Your task to perform on an android device: Show me popular games on the Play Store Image 0: 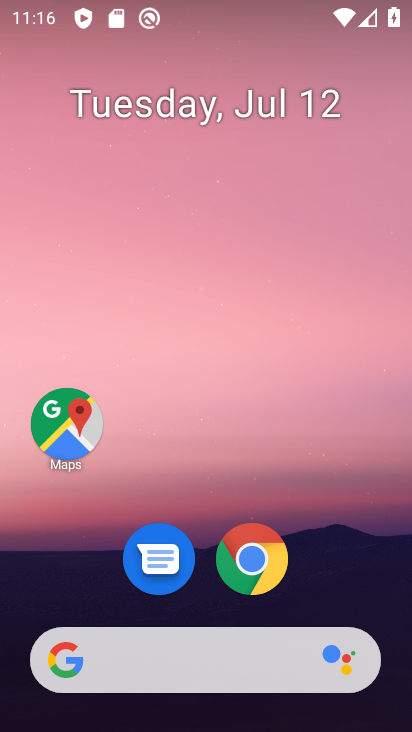
Step 0: drag from (183, 516) to (182, 339)
Your task to perform on an android device: Show me popular games on the Play Store Image 1: 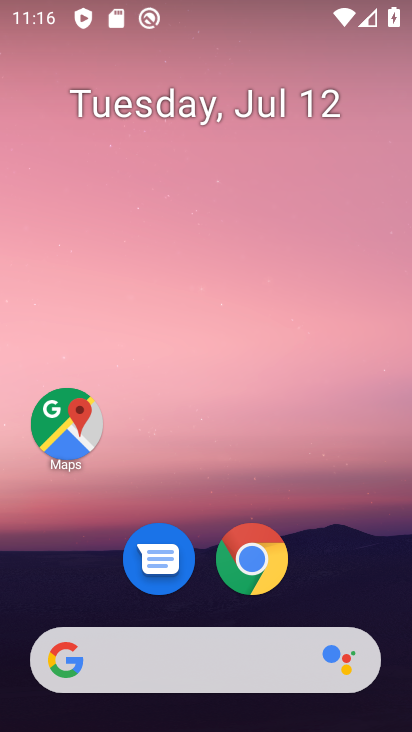
Step 1: drag from (192, 501) to (209, 308)
Your task to perform on an android device: Show me popular games on the Play Store Image 2: 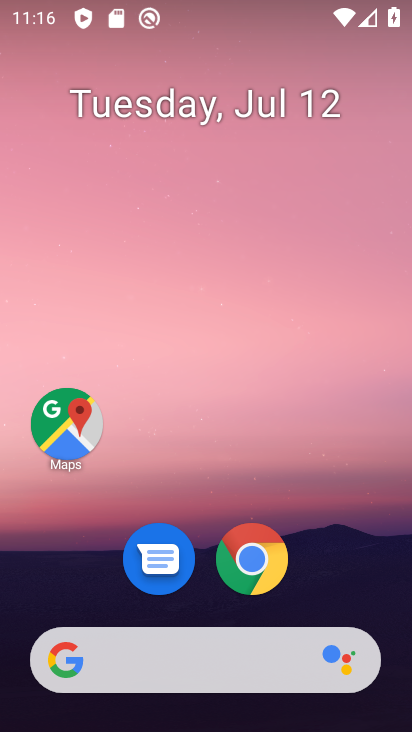
Step 2: drag from (211, 572) to (282, 307)
Your task to perform on an android device: Show me popular games on the Play Store Image 3: 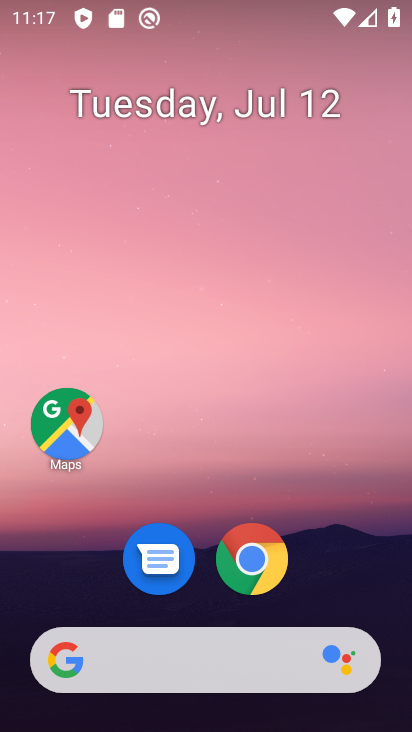
Step 3: drag from (239, 621) to (296, 248)
Your task to perform on an android device: Show me popular games on the Play Store Image 4: 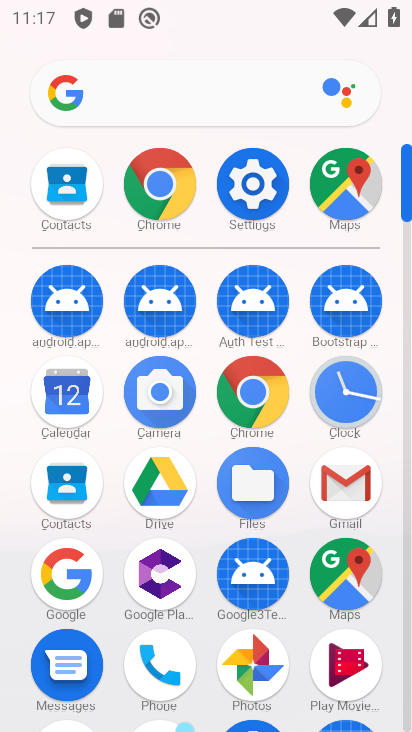
Step 4: drag from (207, 560) to (273, 242)
Your task to perform on an android device: Show me popular games on the Play Store Image 5: 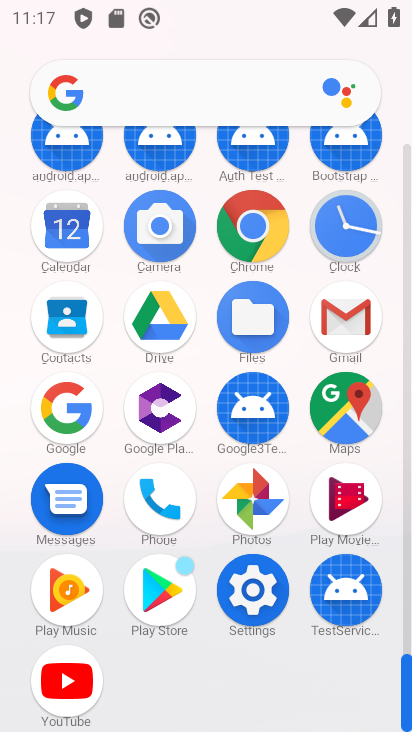
Step 5: click (164, 597)
Your task to perform on an android device: Show me popular games on the Play Store Image 6: 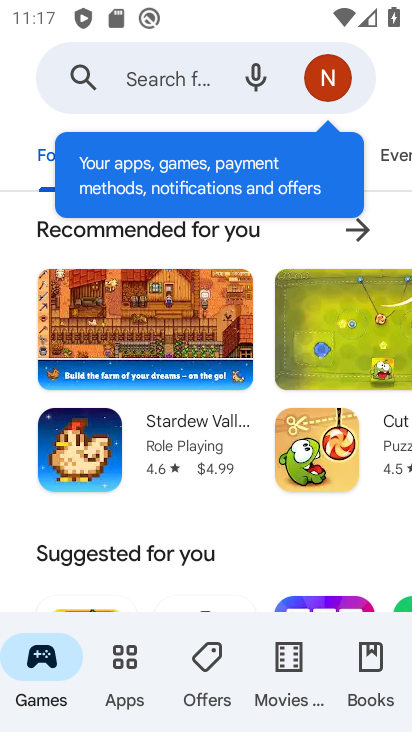
Step 6: task complete